Your task to perform on an android device: move an email to a new category in the gmail app Image 0: 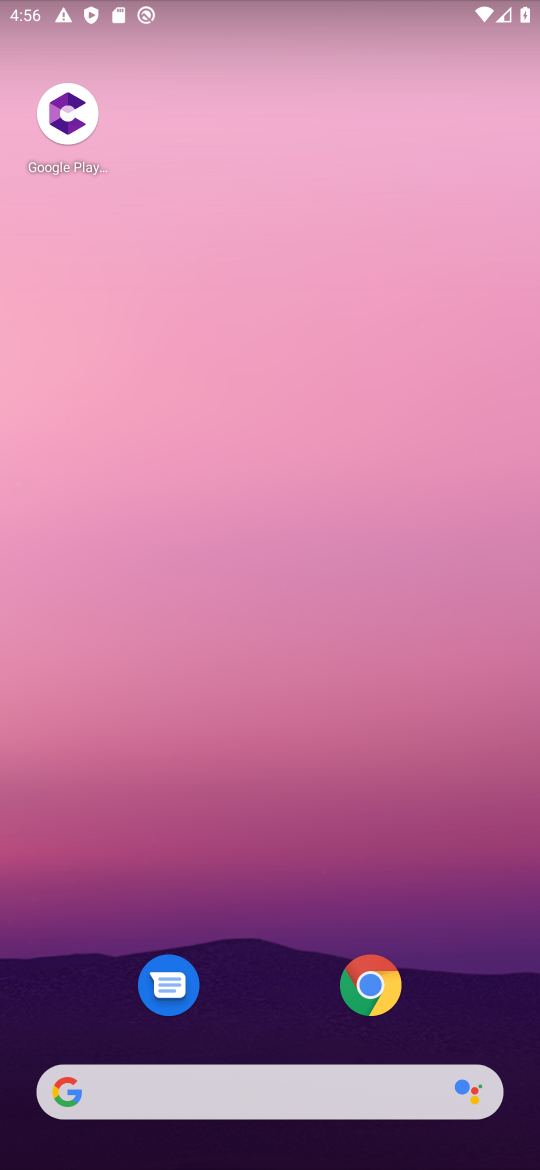
Step 0: drag from (262, 1070) to (303, 658)
Your task to perform on an android device: move an email to a new category in the gmail app Image 1: 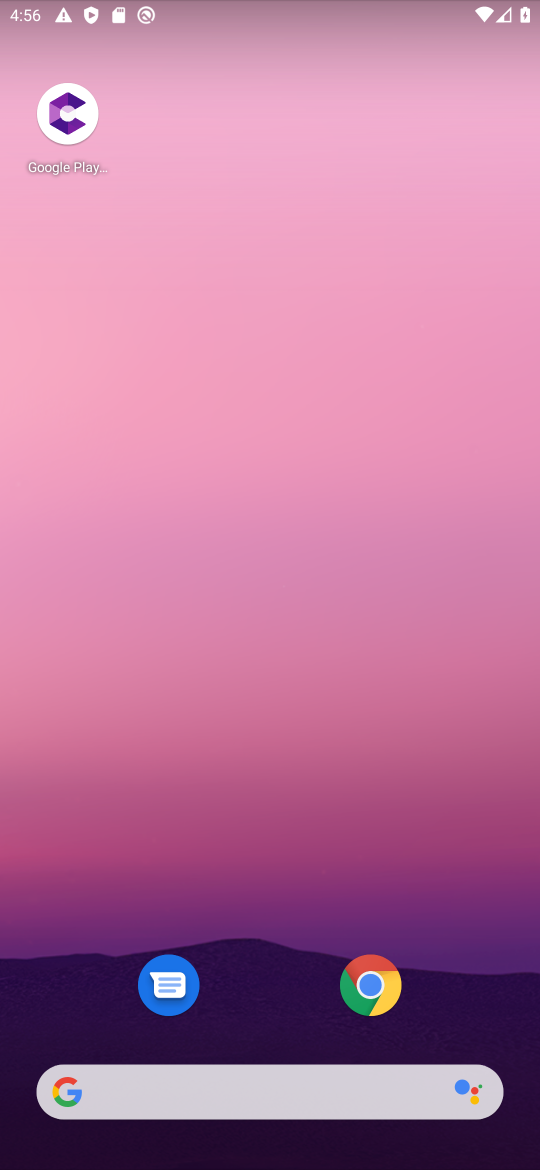
Step 1: drag from (269, 1083) to (271, 292)
Your task to perform on an android device: move an email to a new category in the gmail app Image 2: 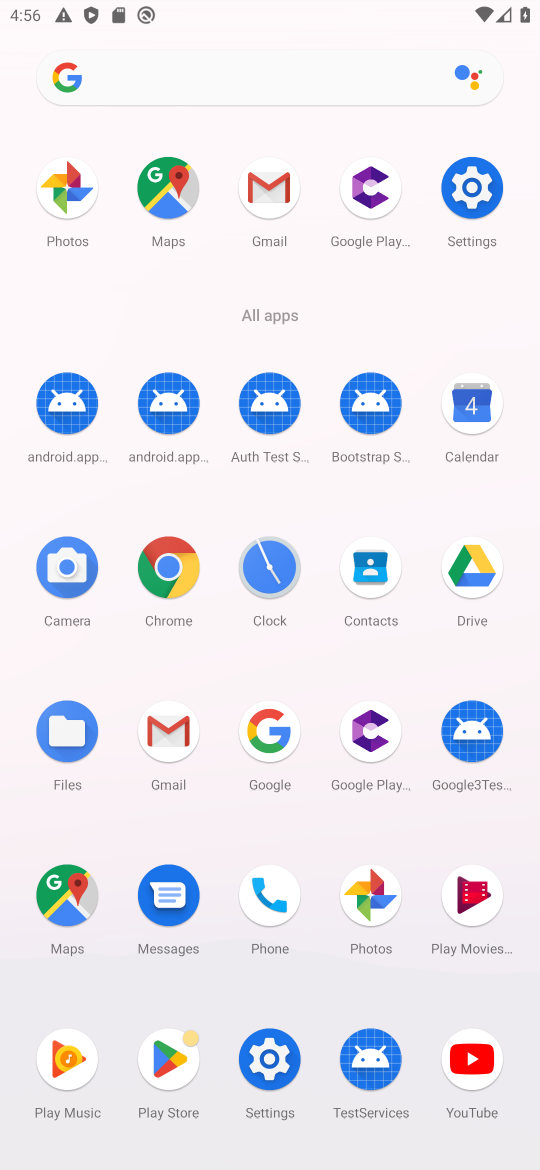
Step 2: click (153, 714)
Your task to perform on an android device: move an email to a new category in the gmail app Image 3: 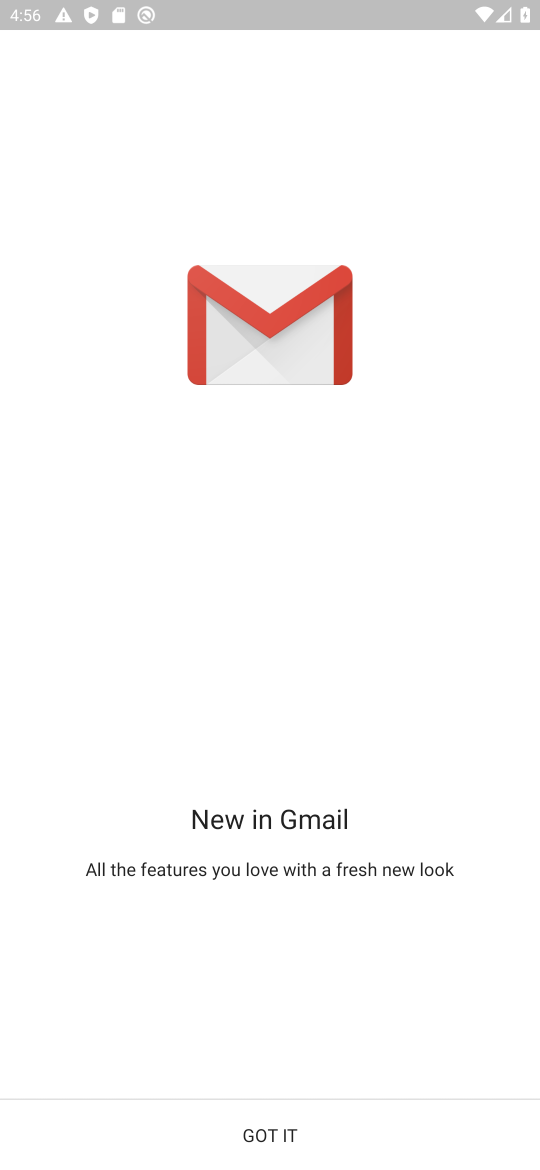
Step 3: click (295, 1113)
Your task to perform on an android device: move an email to a new category in the gmail app Image 4: 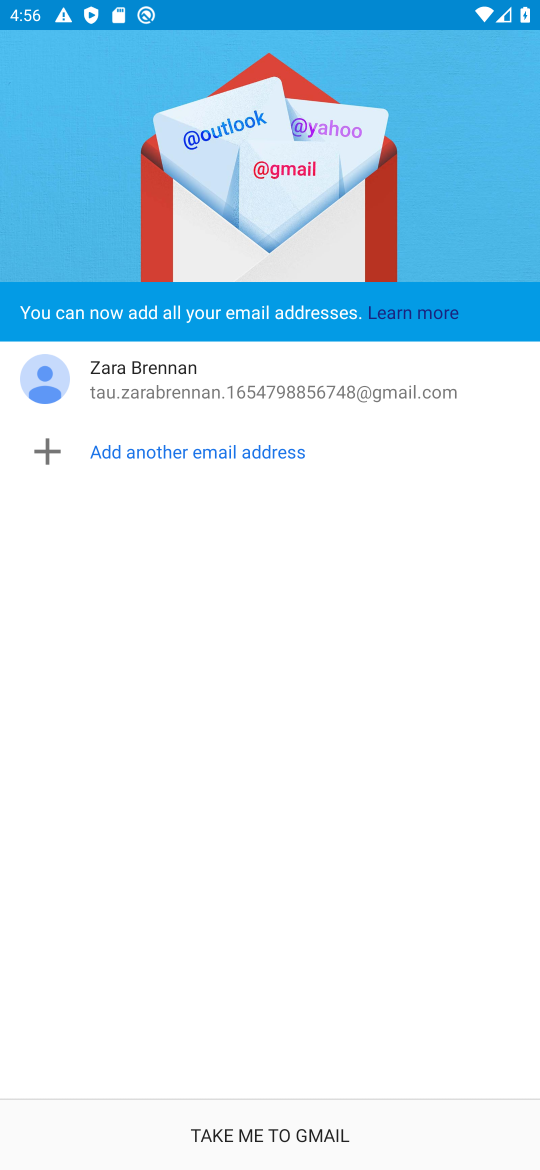
Step 4: click (295, 1113)
Your task to perform on an android device: move an email to a new category in the gmail app Image 5: 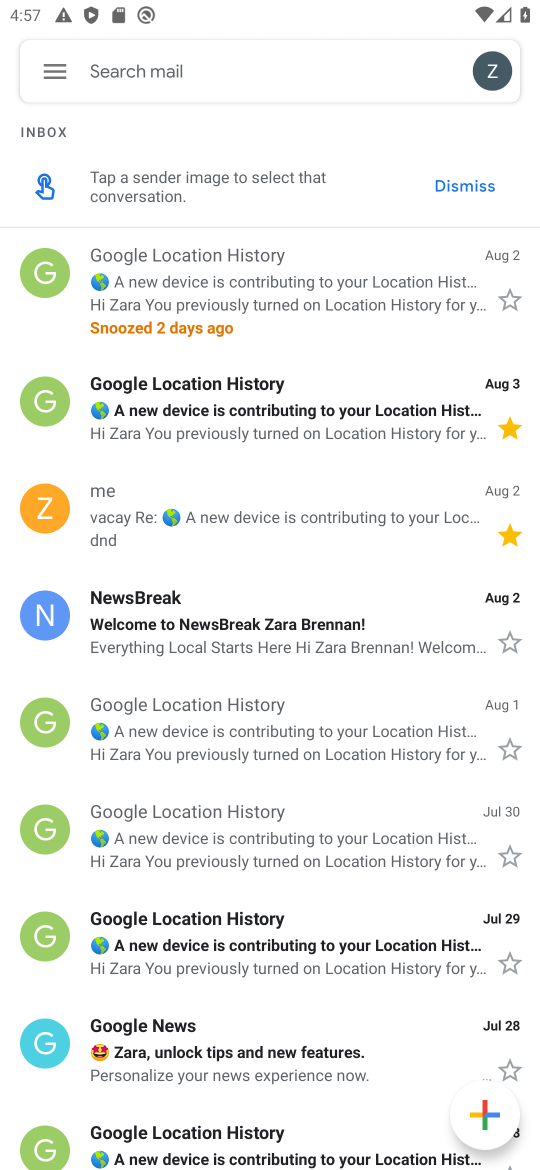
Step 5: click (49, 279)
Your task to perform on an android device: move an email to a new category in the gmail app Image 6: 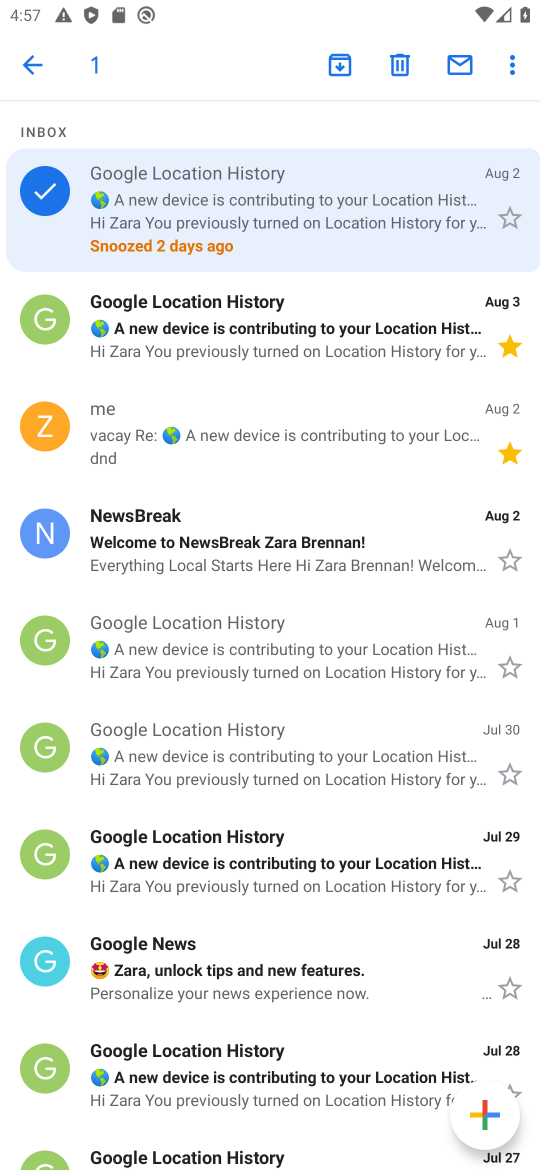
Step 6: click (508, 60)
Your task to perform on an android device: move an email to a new category in the gmail app Image 7: 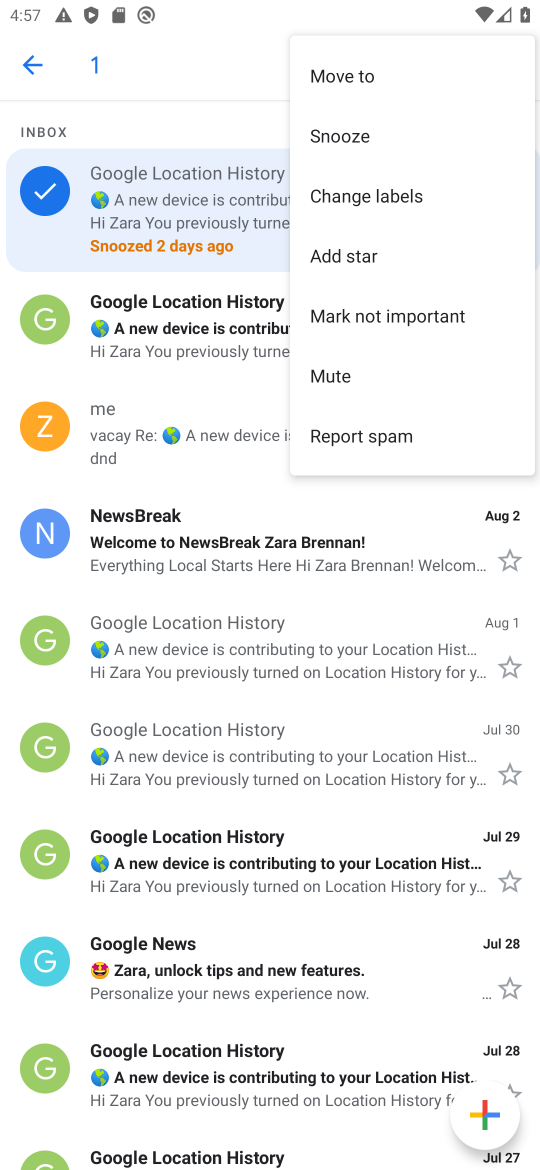
Step 7: click (374, 66)
Your task to perform on an android device: move an email to a new category in the gmail app Image 8: 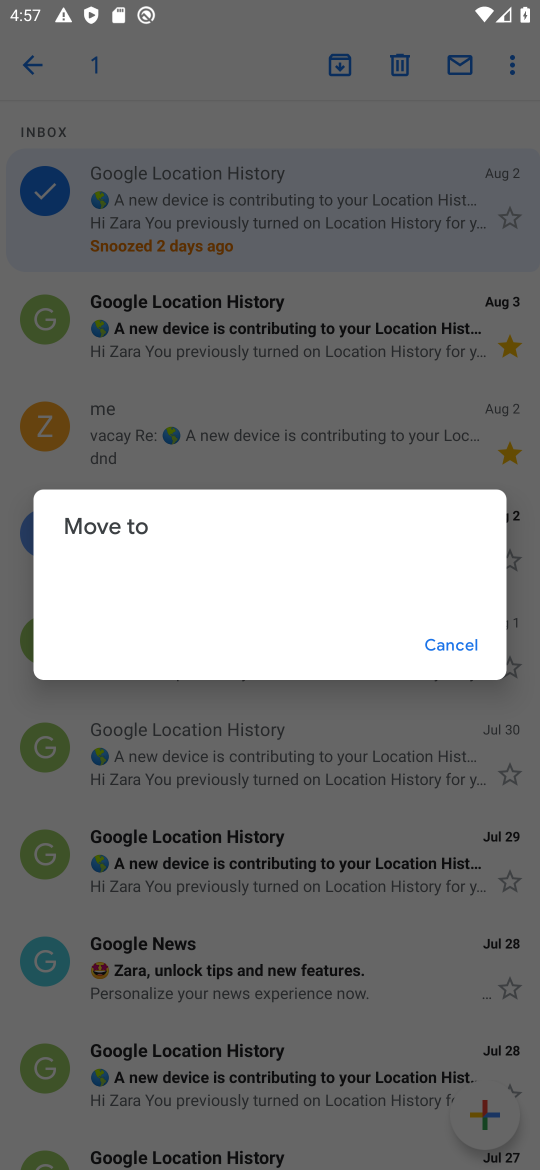
Step 8: task complete